Your task to perform on an android device: refresh tabs in the chrome app Image 0: 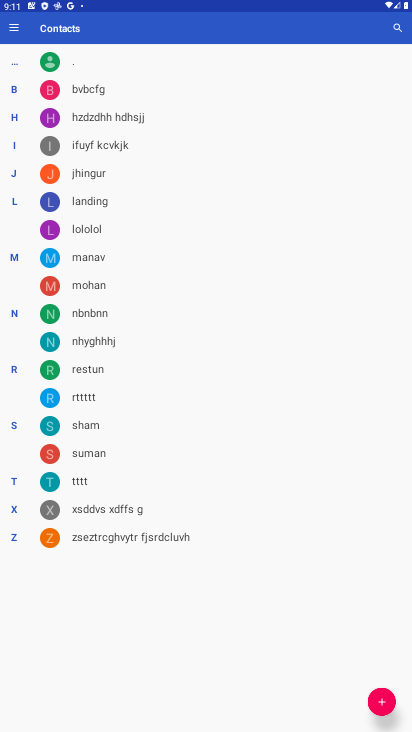
Step 0: press home button
Your task to perform on an android device: refresh tabs in the chrome app Image 1: 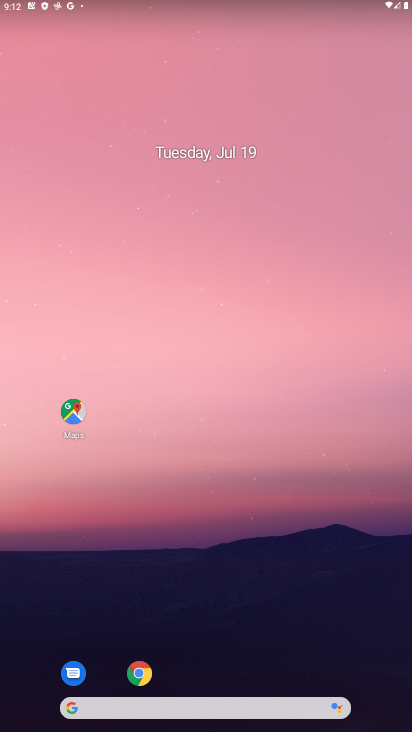
Step 1: click (147, 671)
Your task to perform on an android device: refresh tabs in the chrome app Image 2: 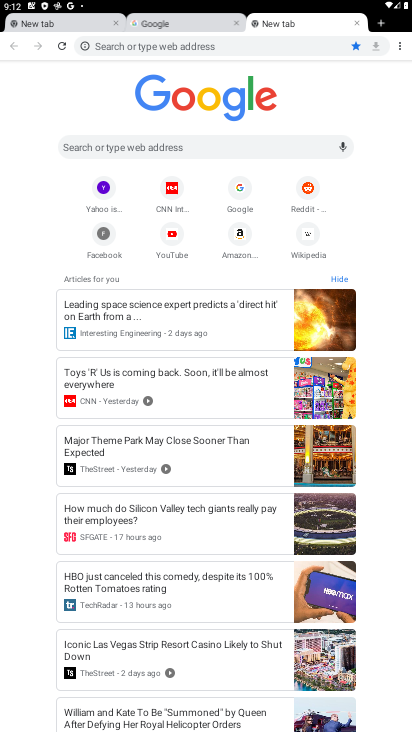
Step 2: click (182, 21)
Your task to perform on an android device: refresh tabs in the chrome app Image 3: 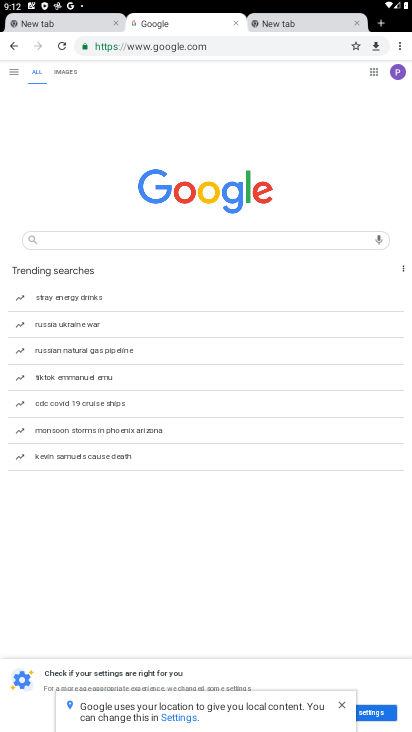
Step 3: click (63, 51)
Your task to perform on an android device: refresh tabs in the chrome app Image 4: 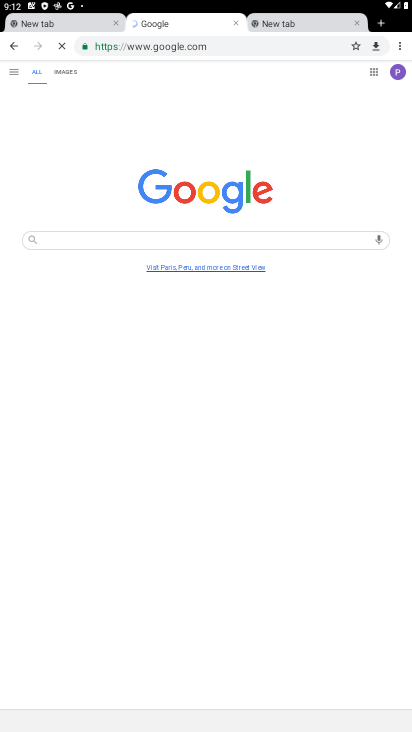
Step 4: task complete